Your task to perform on an android device: see sites visited before in the chrome app Image 0: 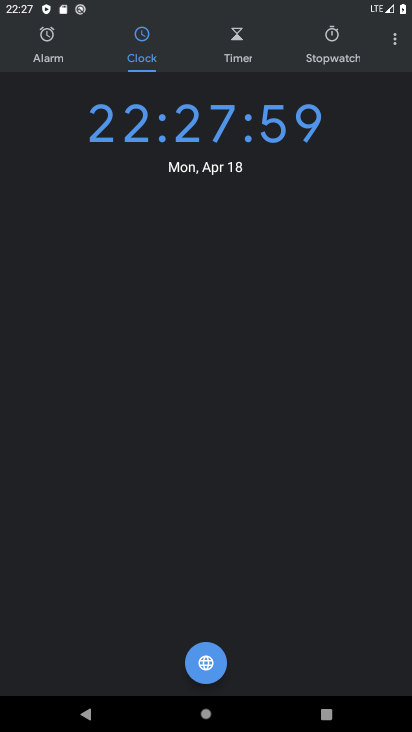
Step 0: press home button
Your task to perform on an android device: see sites visited before in the chrome app Image 1: 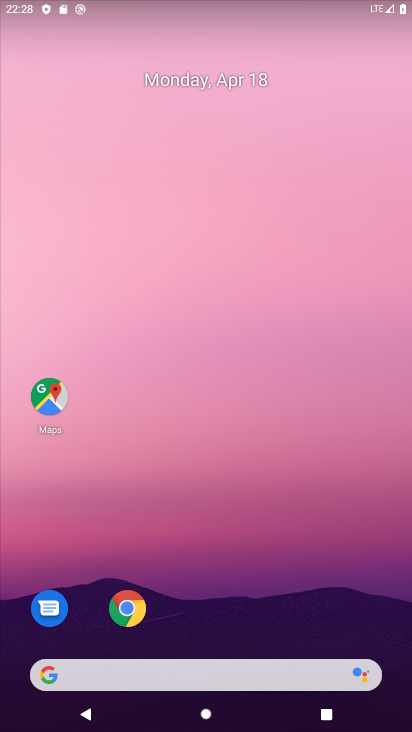
Step 1: click (130, 609)
Your task to perform on an android device: see sites visited before in the chrome app Image 2: 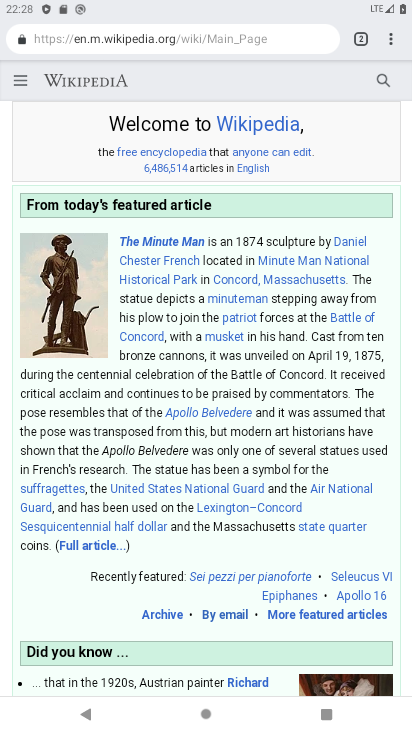
Step 2: click (389, 39)
Your task to perform on an android device: see sites visited before in the chrome app Image 3: 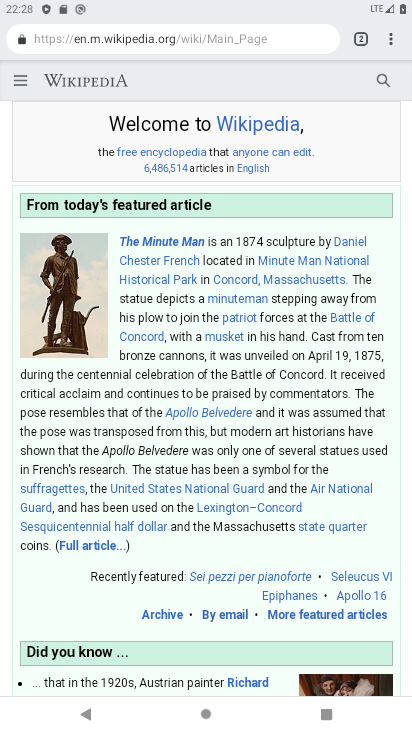
Step 3: click (386, 42)
Your task to perform on an android device: see sites visited before in the chrome app Image 4: 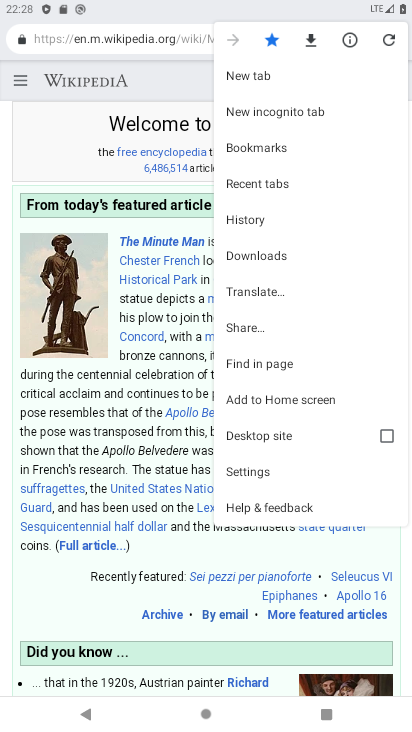
Step 4: click (262, 212)
Your task to perform on an android device: see sites visited before in the chrome app Image 5: 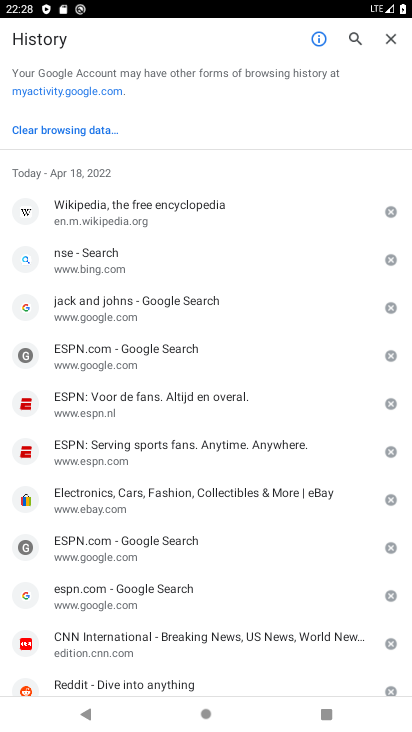
Step 5: task complete